Your task to perform on an android device: turn on bluetooth scan Image 0: 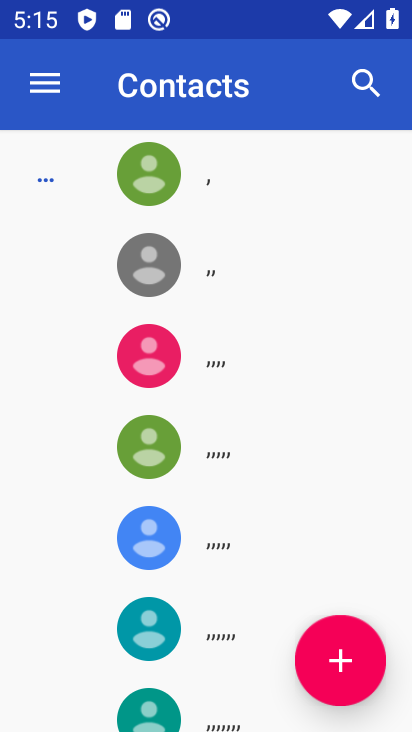
Step 0: press back button
Your task to perform on an android device: turn on bluetooth scan Image 1: 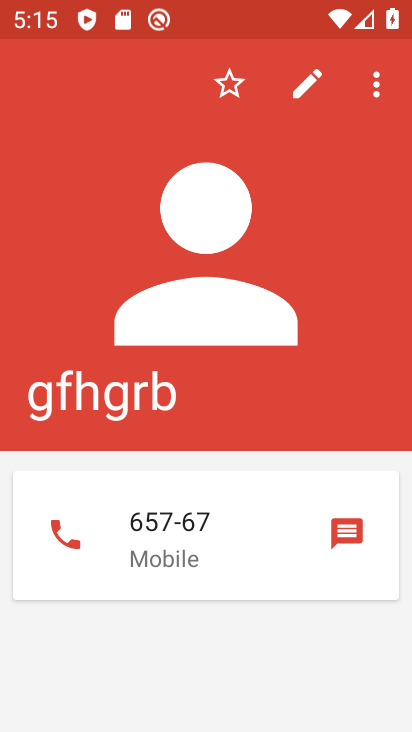
Step 1: press back button
Your task to perform on an android device: turn on bluetooth scan Image 2: 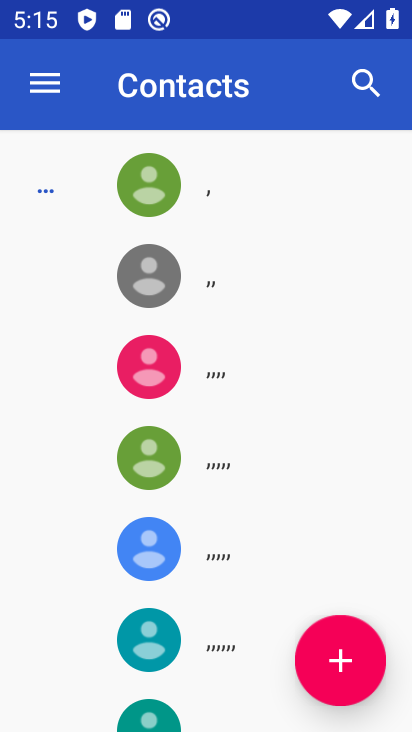
Step 2: press back button
Your task to perform on an android device: turn on bluetooth scan Image 3: 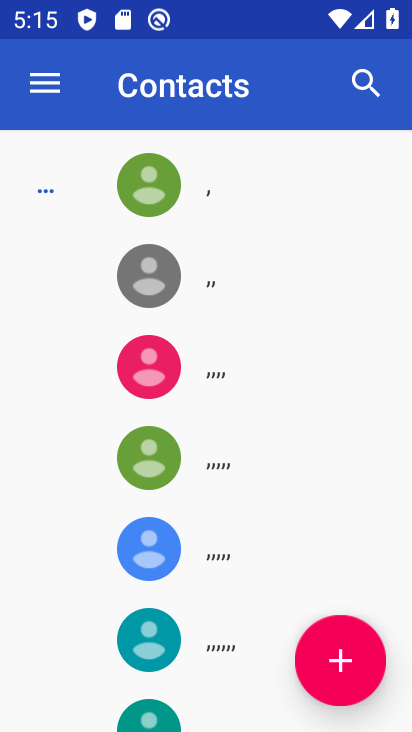
Step 3: press back button
Your task to perform on an android device: turn on bluetooth scan Image 4: 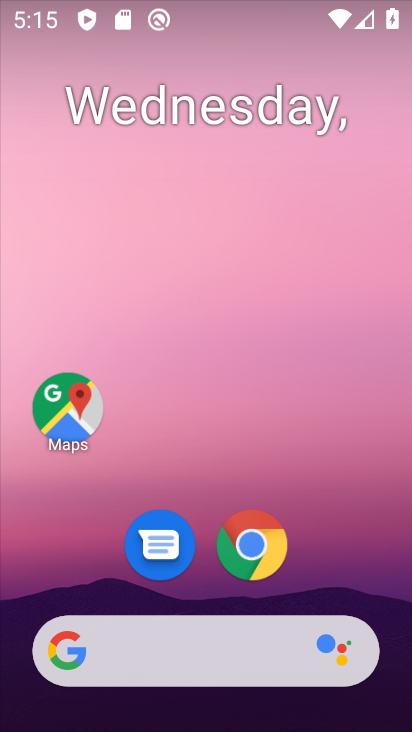
Step 4: drag from (228, 578) to (255, 56)
Your task to perform on an android device: turn on bluetooth scan Image 5: 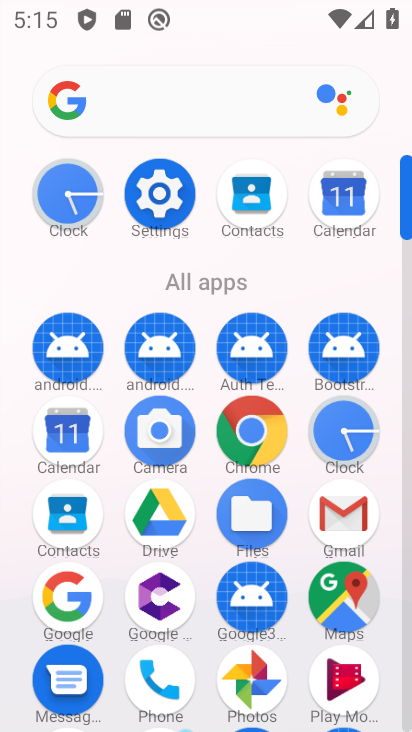
Step 5: click (159, 199)
Your task to perform on an android device: turn on bluetooth scan Image 6: 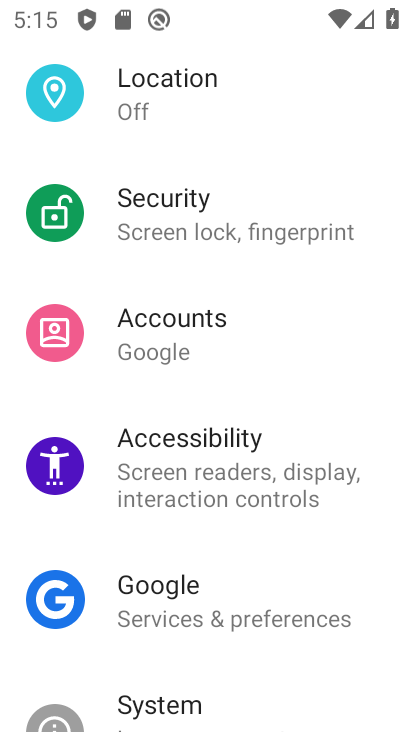
Step 6: drag from (163, 184) to (205, 622)
Your task to perform on an android device: turn on bluetooth scan Image 7: 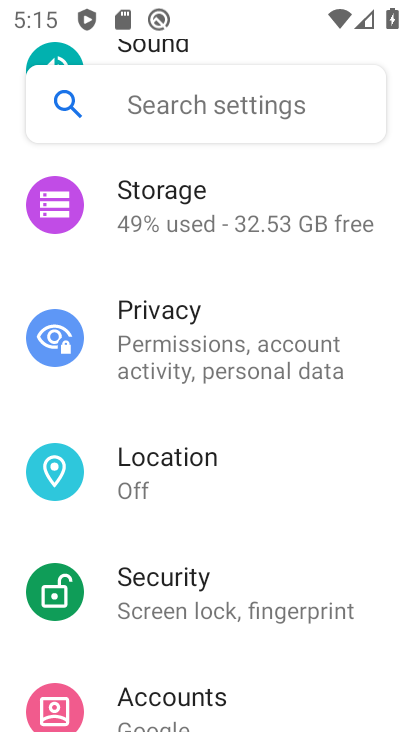
Step 7: drag from (217, 239) to (217, 695)
Your task to perform on an android device: turn on bluetooth scan Image 8: 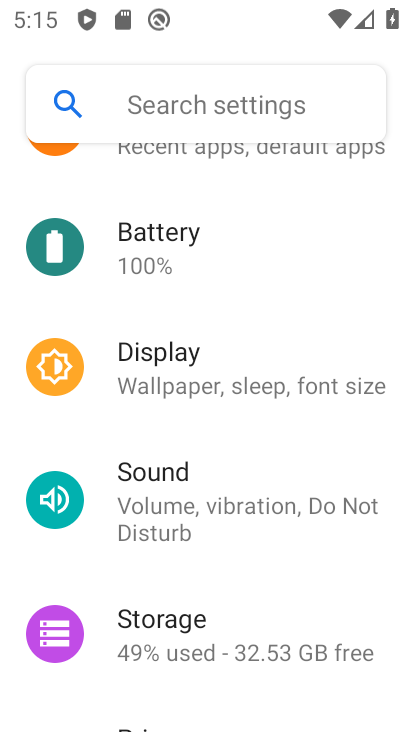
Step 8: drag from (214, 260) to (209, 692)
Your task to perform on an android device: turn on bluetooth scan Image 9: 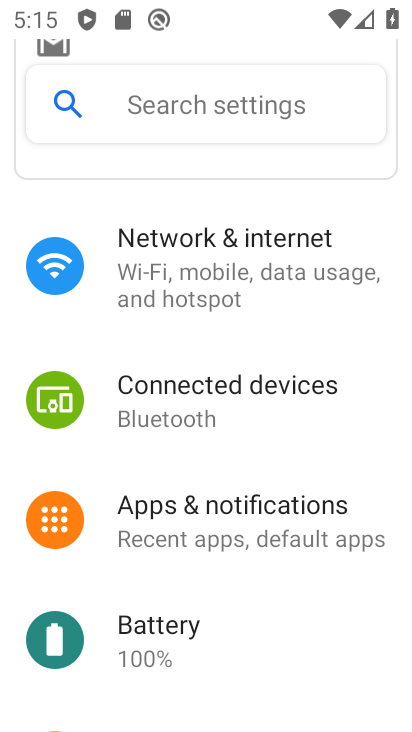
Step 9: click (153, 394)
Your task to perform on an android device: turn on bluetooth scan Image 10: 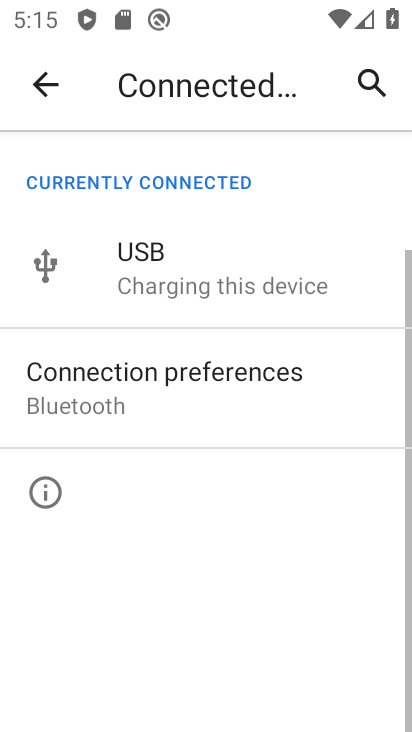
Step 10: click (123, 390)
Your task to perform on an android device: turn on bluetooth scan Image 11: 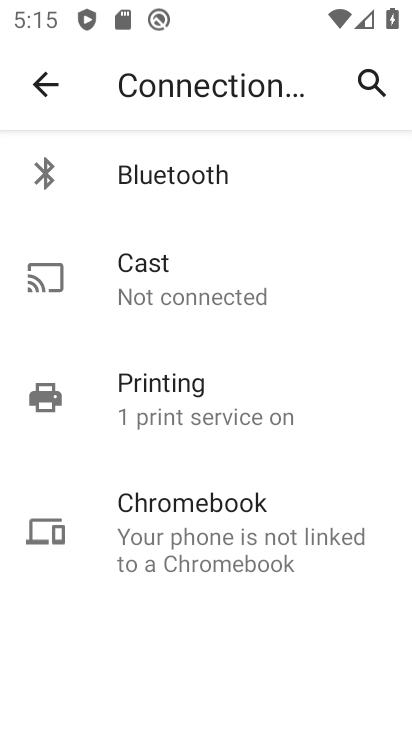
Step 11: click (174, 177)
Your task to perform on an android device: turn on bluetooth scan Image 12: 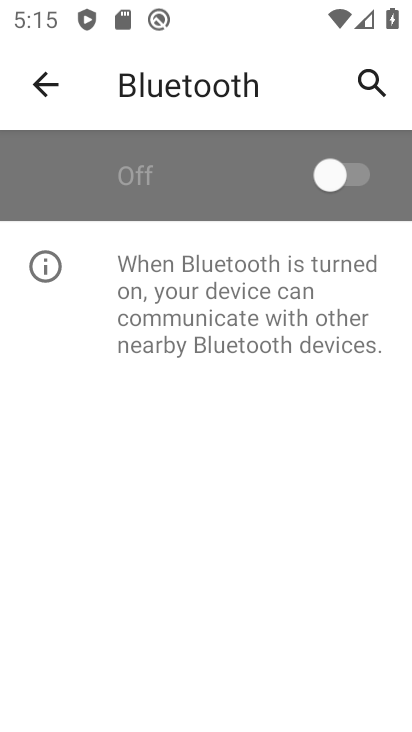
Step 12: click (328, 164)
Your task to perform on an android device: turn on bluetooth scan Image 13: 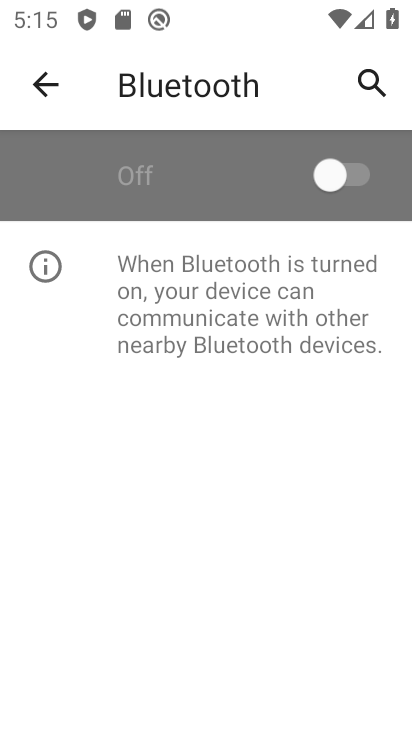
Step 13: task complete